Your task to perform on an android device: What's the latest video from GameSpot Trailers? Image 0: 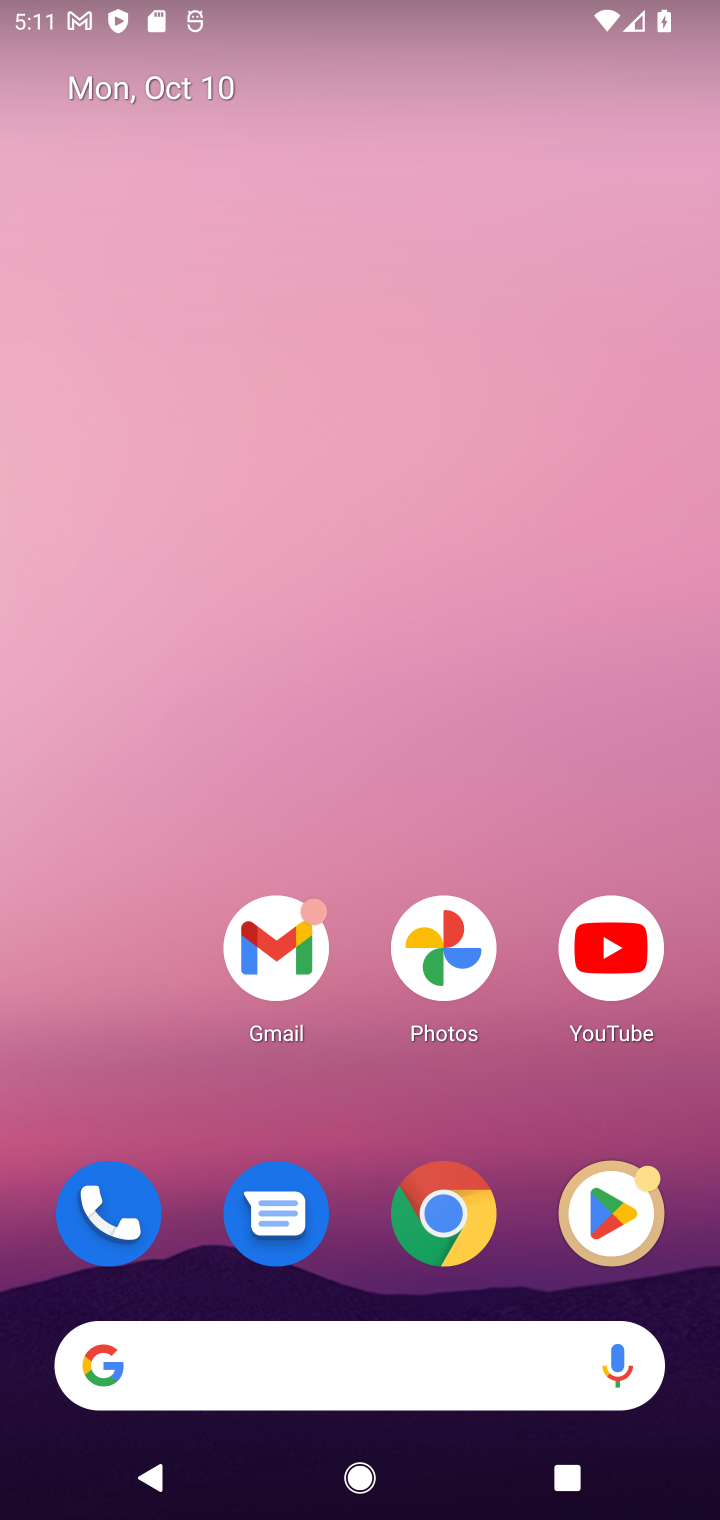
Step 0: click (601, 938)
Your task to perform on an android device: What's the latest video from GameSpot Trailers? Image 1: 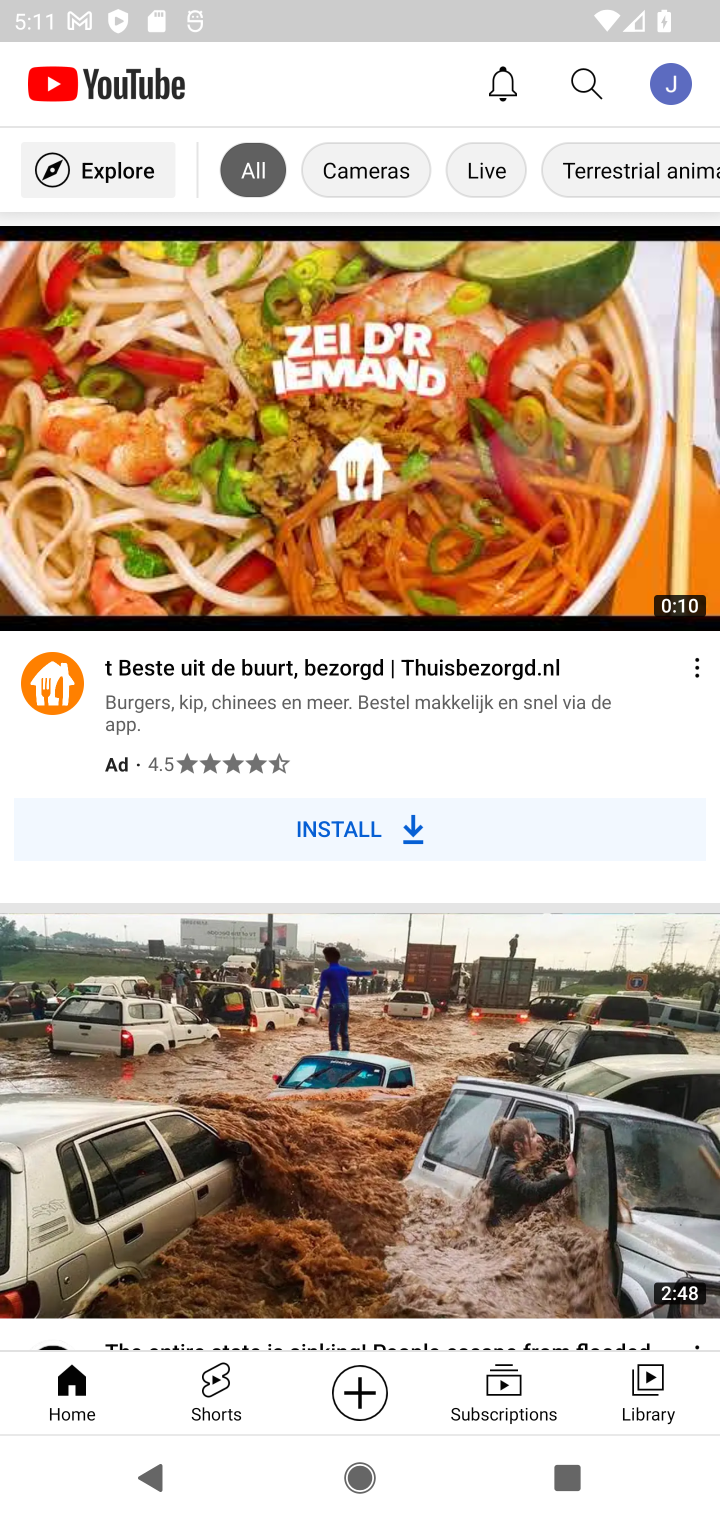
Step 1: click (569, 82)
Your task to perform on an android device: What's the latest video from GameSpot Trailers? Image 2: 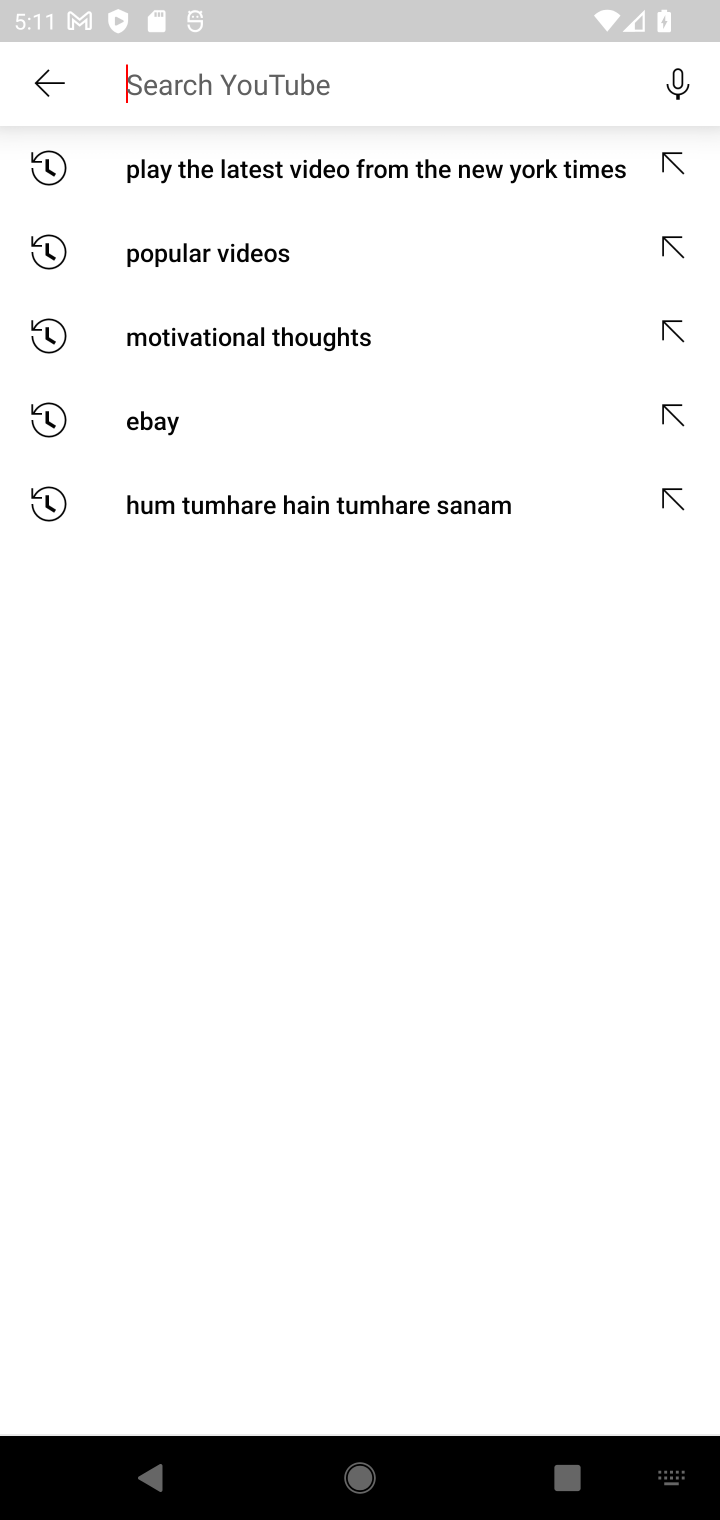
Step 2: click (273, 68)
Your task to perform on an android device: What's the latest video from GameSpot Trailers? Image 3: 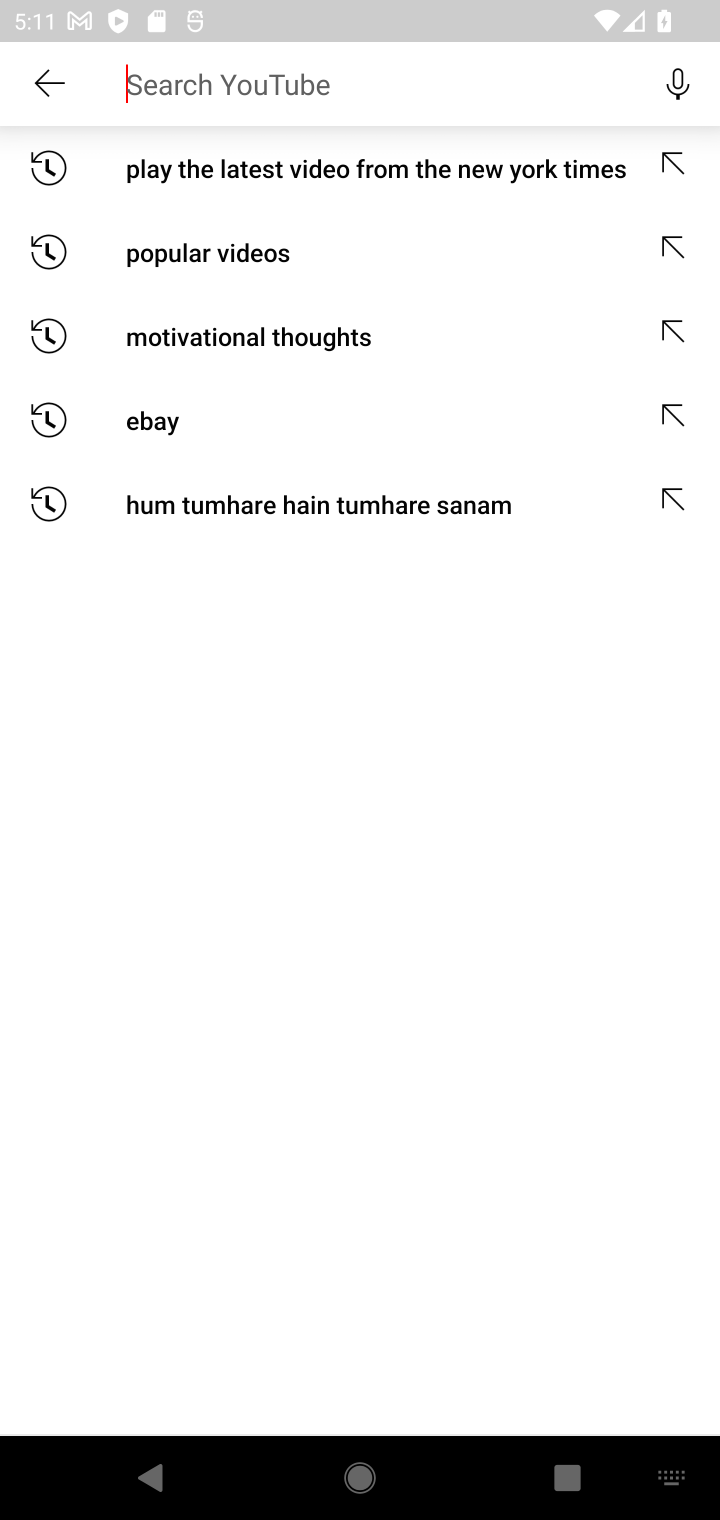
Step 3: type "GameSpot Trailers"
Your task to perform on an android device: What's the latest video from GameSpot Trailers? Image 4: 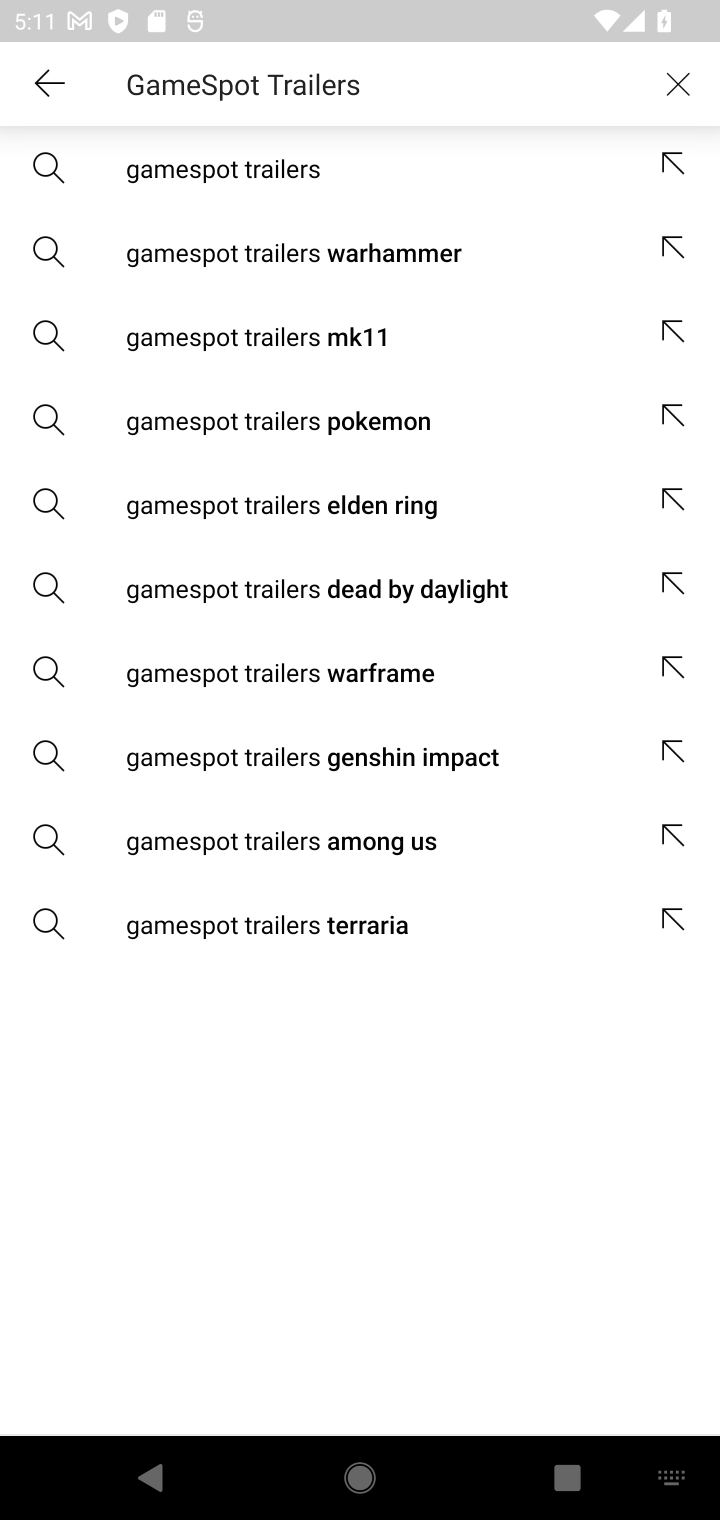
Step 4: click (218, 160)
Your task to perform on an android device: What's the latest video from GameSpot Trailers? Image 5: 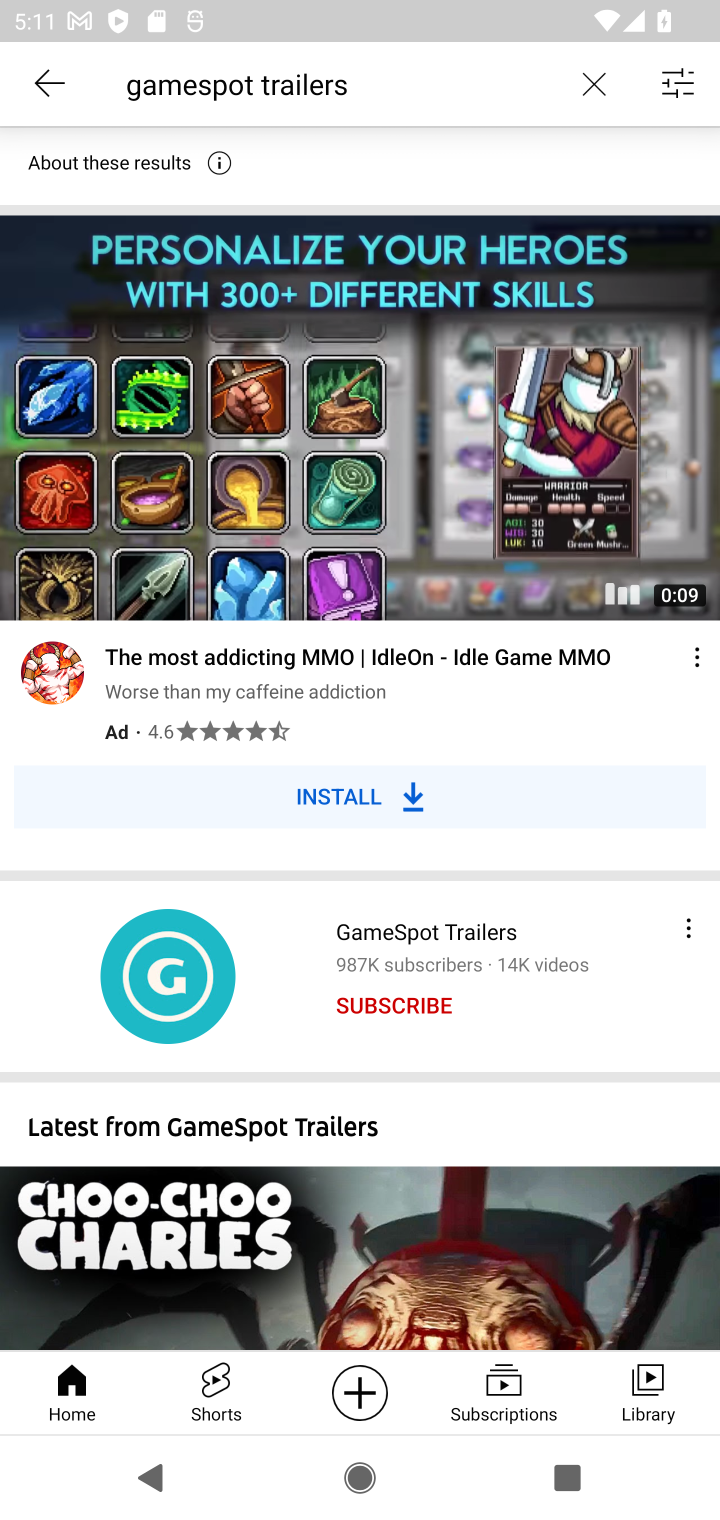
Step 5: click (371, 929)
Your task to perform on an android device: What's the latest video from GameSpot Trailers? Image 6: 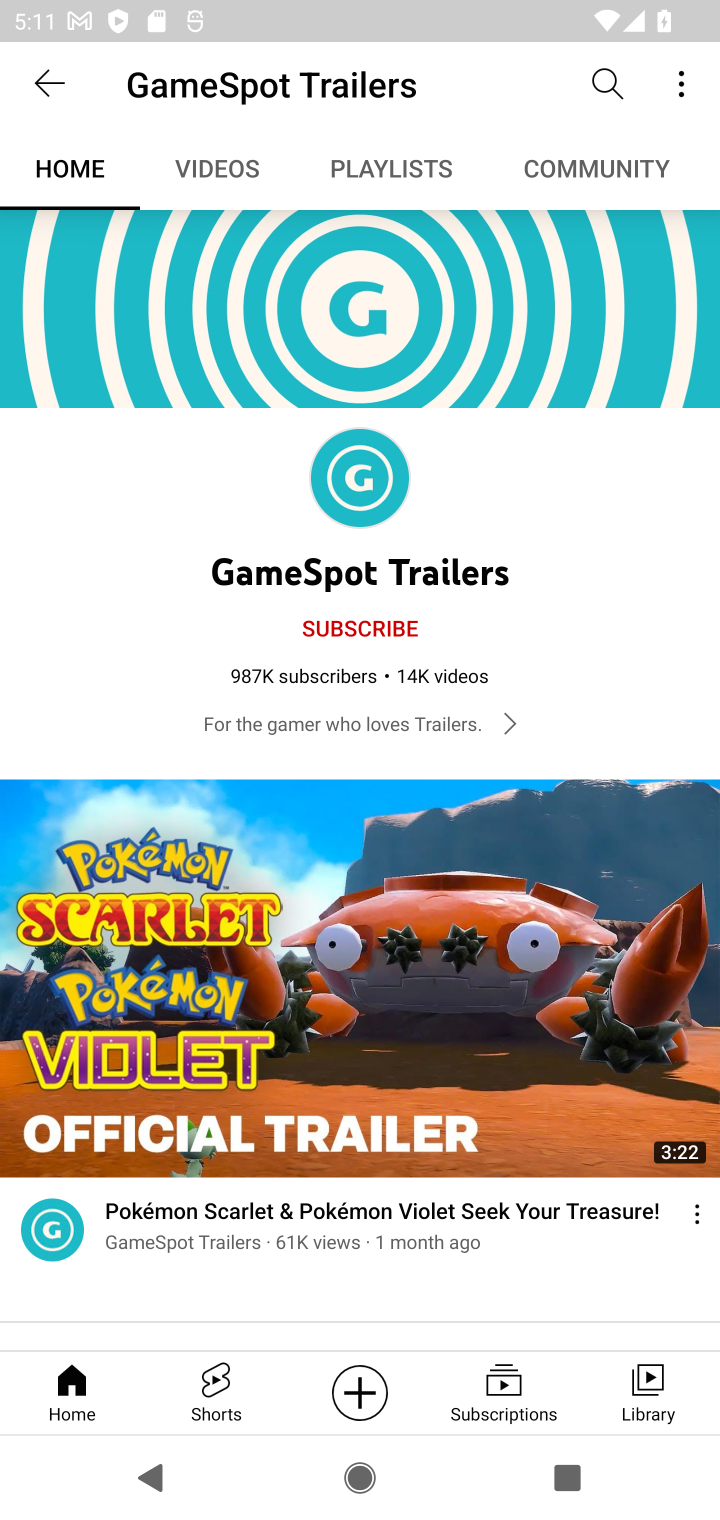
Step 6: click (211, 175)
Your task to perform on an android device: What's the latest video from GameSpot Trailers? Image 7: 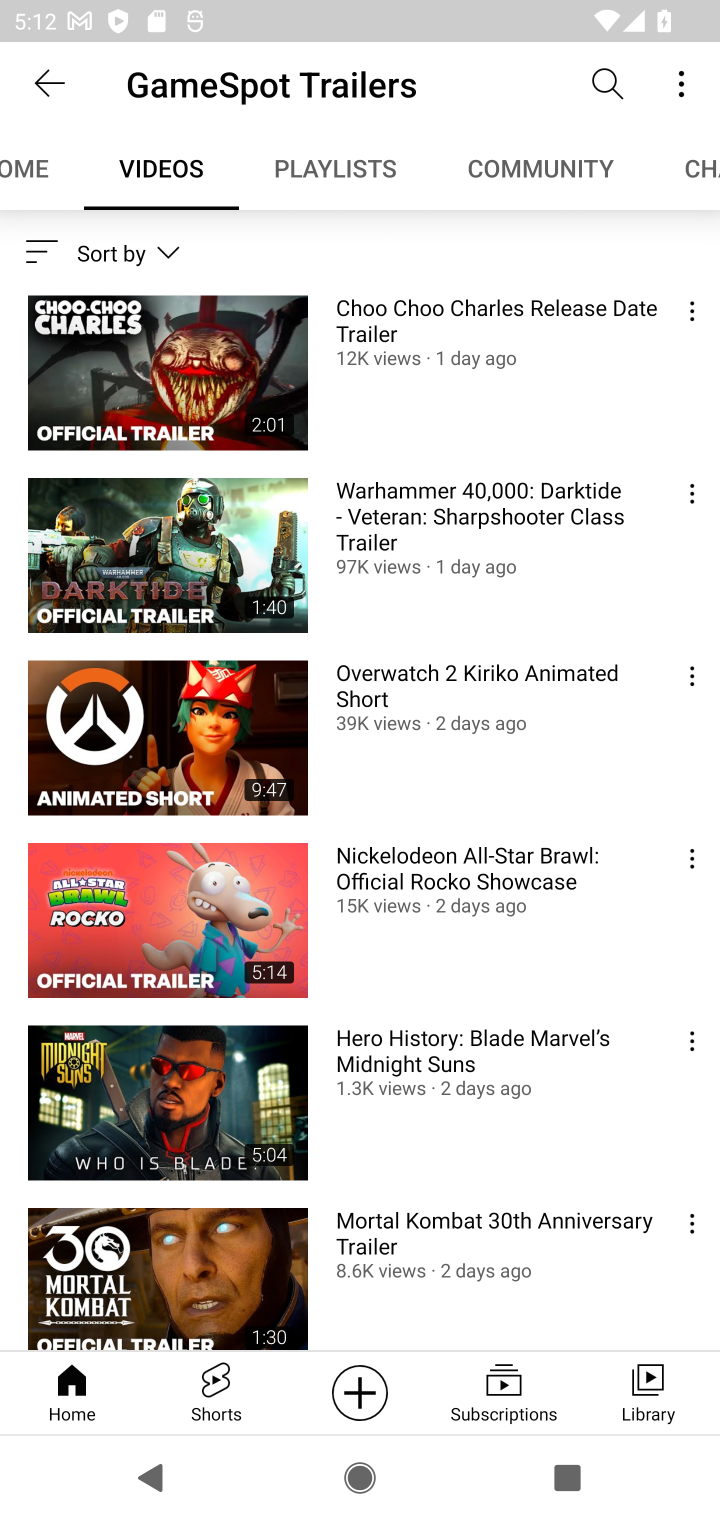
Step 7: click (154, 316)
Your task to perform on an android device: What's the latest video from GameSpot Trailers? Image 8: 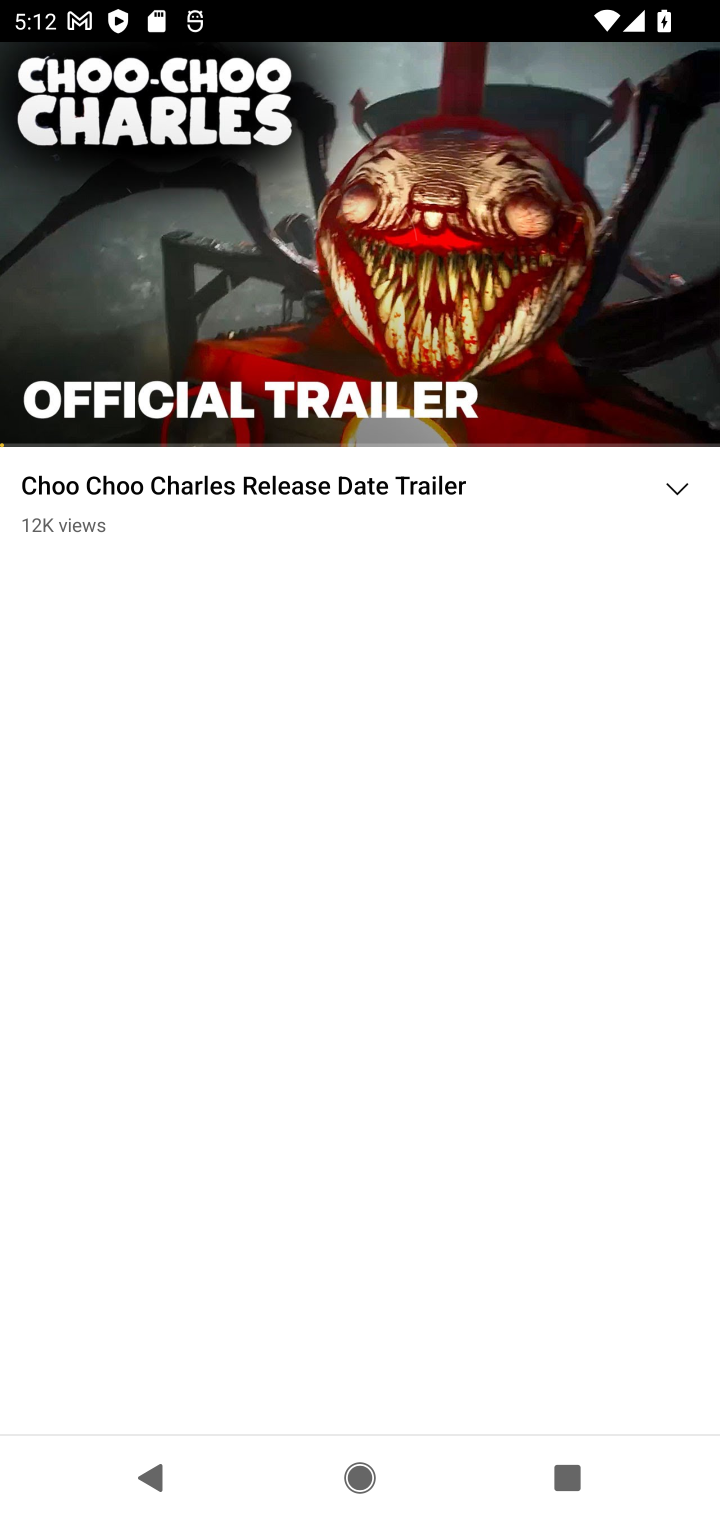
Step 8: click (296, 220)
Your task to perform on an android device: What's the latest video from GameSpot Trailers? Image 9: 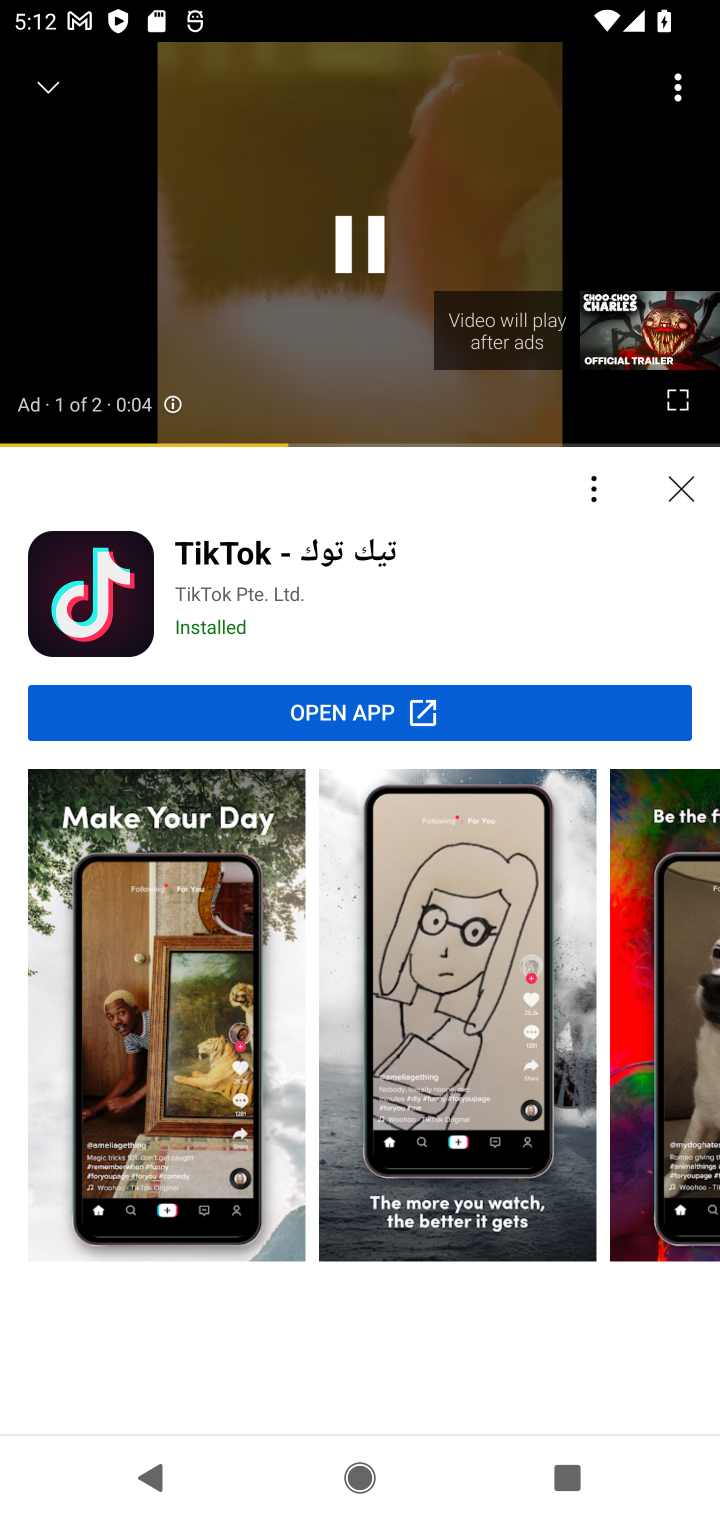
Step 9: click (339, 243)
Your task to perform on an android device: What's the latest video from GameSpot Trailers? Image 10: 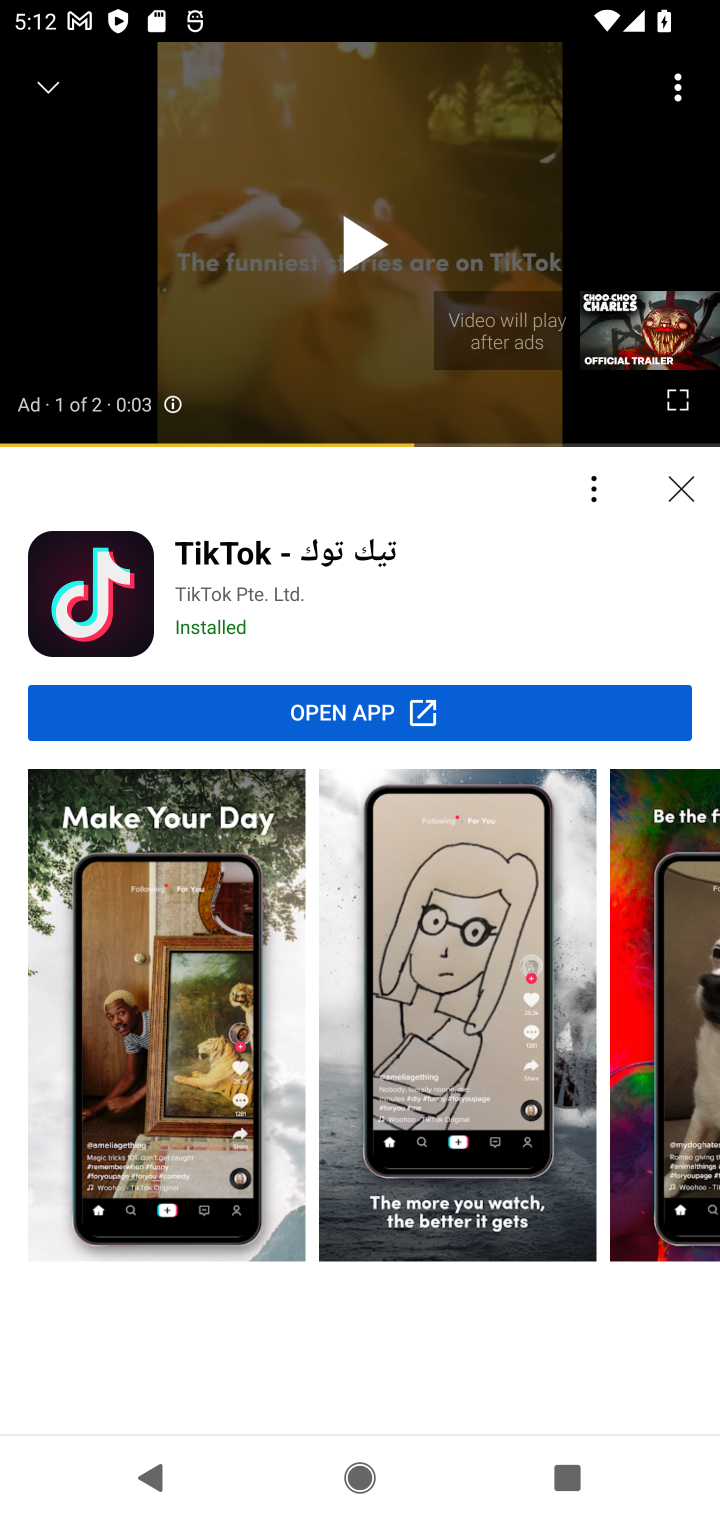
Step 10: task complete